Your task to perform on an android device: set an alarm Image 0: 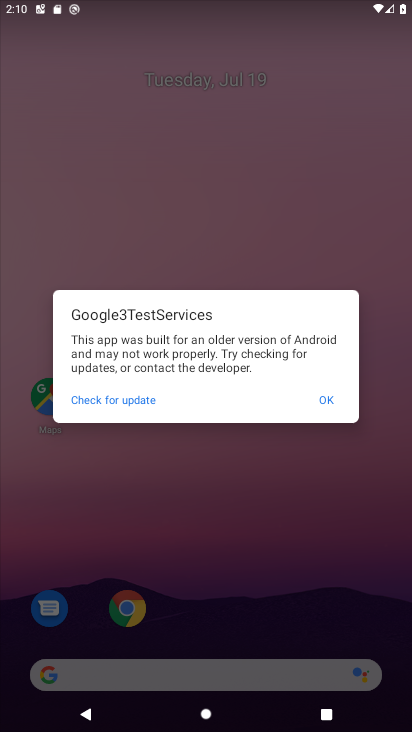
Step 0: click (333, 412)
Your task to perform on an android device: set an alarm Image 1: 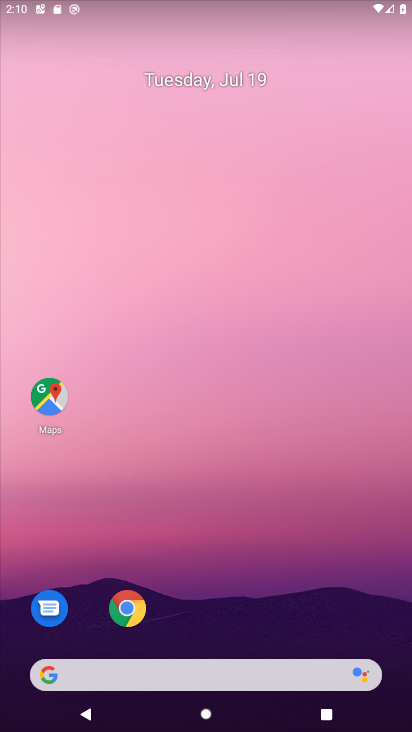
Step 1: drag from (250, 547) to (296, 60)
Your task to perform on an android device: set an alarm Image 2: 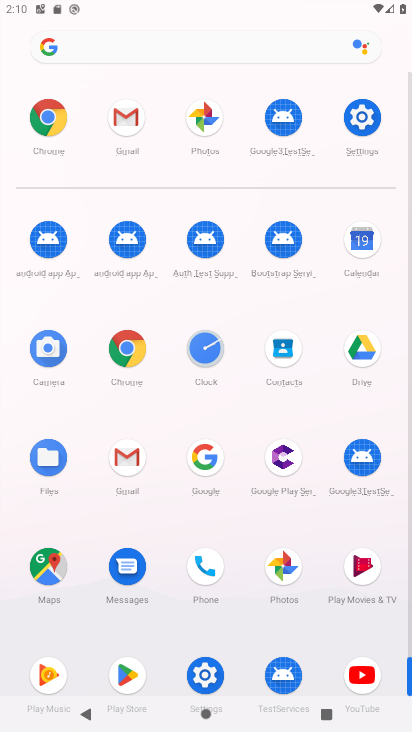
Step 2: click (214, 361)
Your task to perform on an android device: set an alarm Image 3: 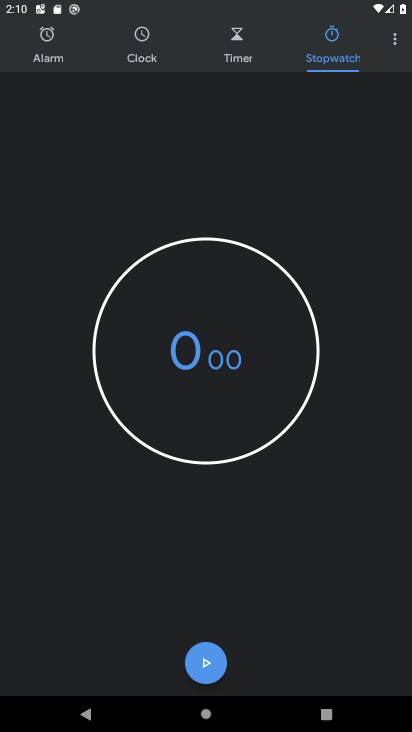
Step 3: click (66, 51)
Your task to perform on an android device: set an alarm Image 4: 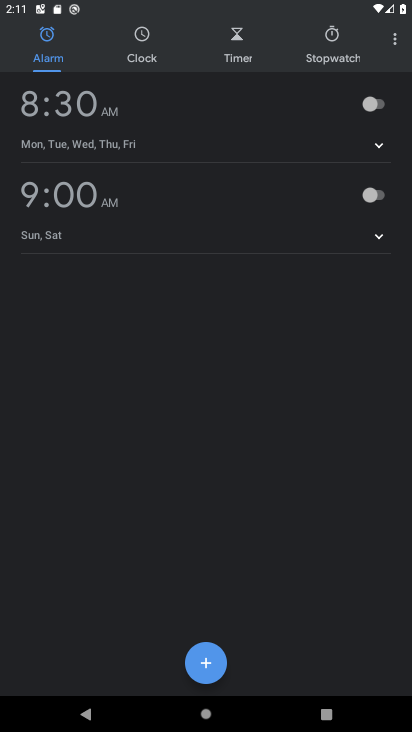
Step 4: click (373, 113)
Your task to perform on an android device: set an alarm Image 5: 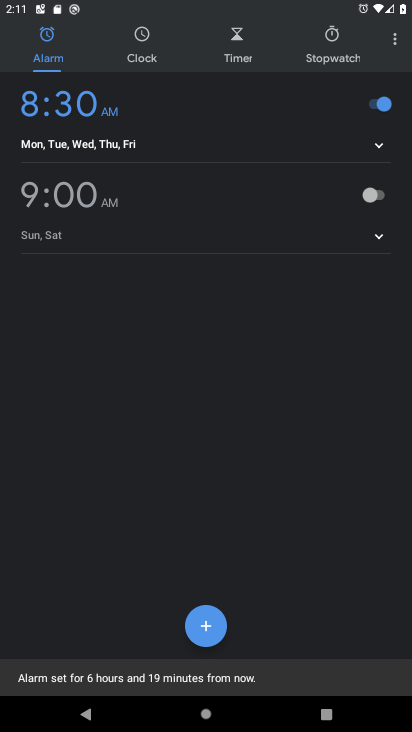
Step 5: task complete